Your task to perform on an android device: empty trash in the gmail app Image 0: 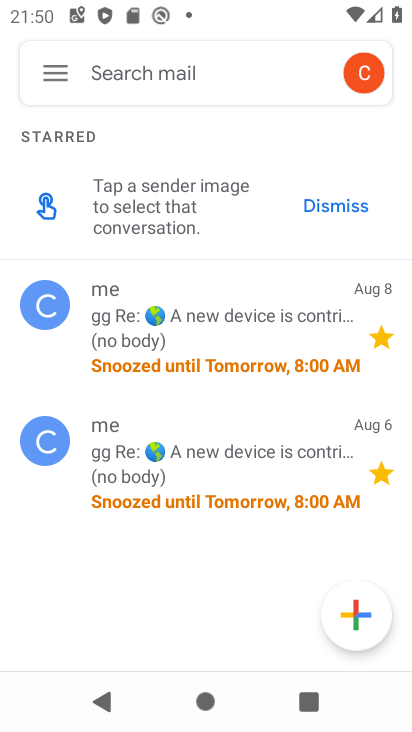
Step 0: click (56, 68)
Your task to perform on an android device: empty trash in the gmail app Image 1: 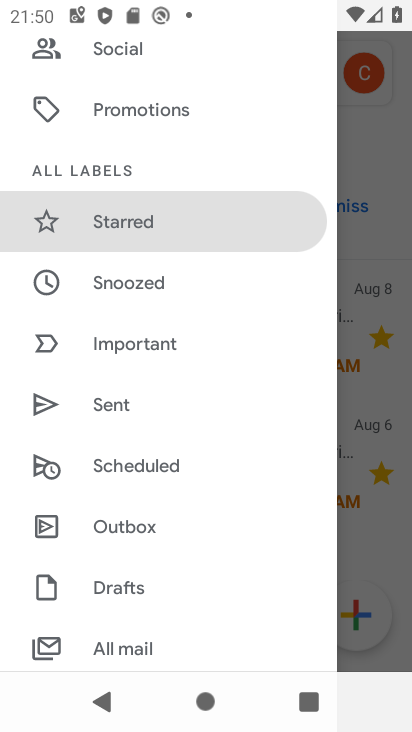
Step 1: drag from (164, 555) to (209, 56)
Your task to perform on an android device: empty trash in the gmail app Image 2: 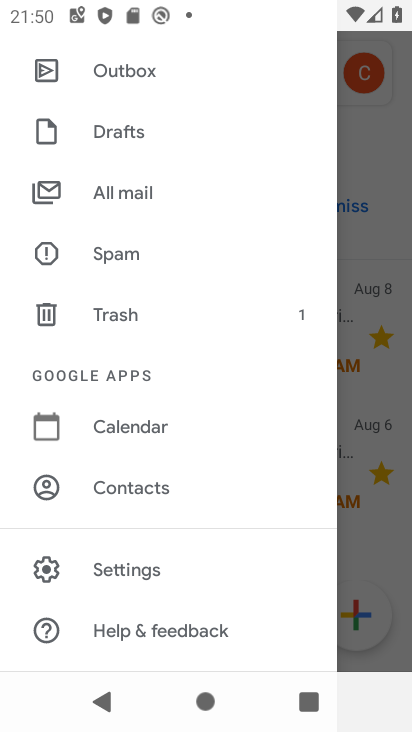
Step 2: click (146, 311)
Your task to perform on an android device: empty trash in the gmail app Image 3: 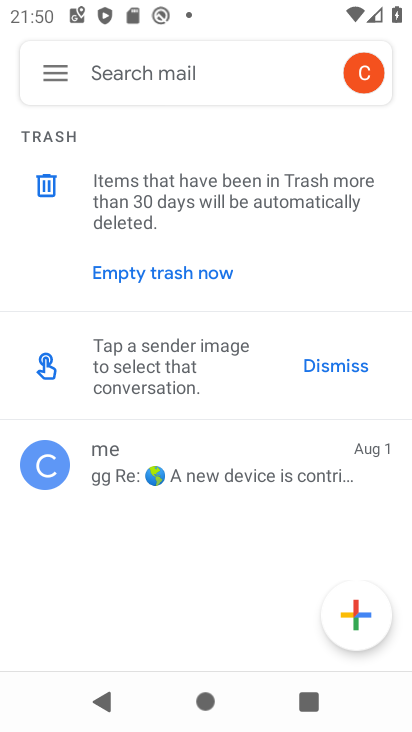
Step 3: click (174, 269)
Your task to perform on an android device: empty trash in the gmail app Image 4: 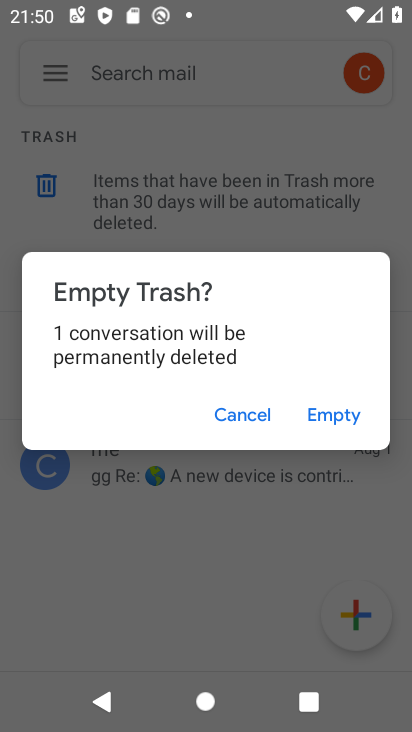
Step 4: click (332, 411)
Your task to perform on an android device: empty trash in the gmail app Image 5: 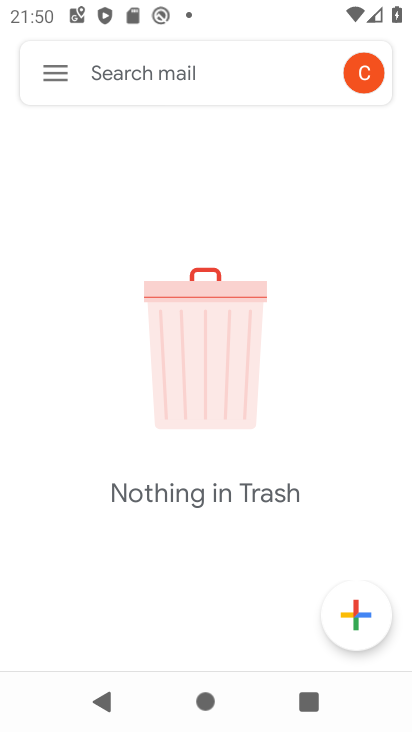
Step 5: task complete